Your task to perform on an android device: snooze an email in the gmail app Image 0: 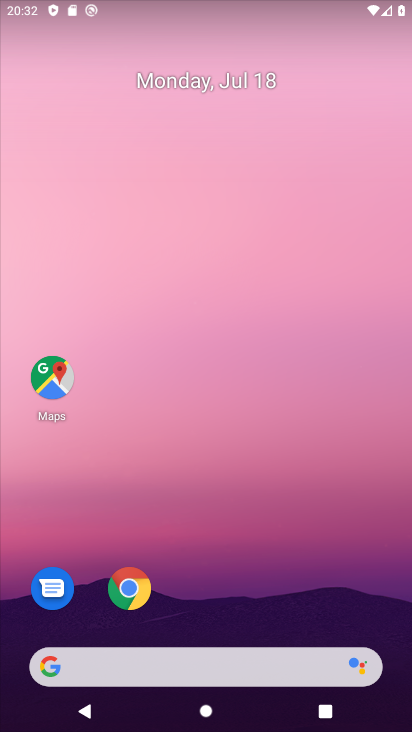
Step 0: press home button
Your task to perform on an android device: snooze an email in the gmail app Image 1: 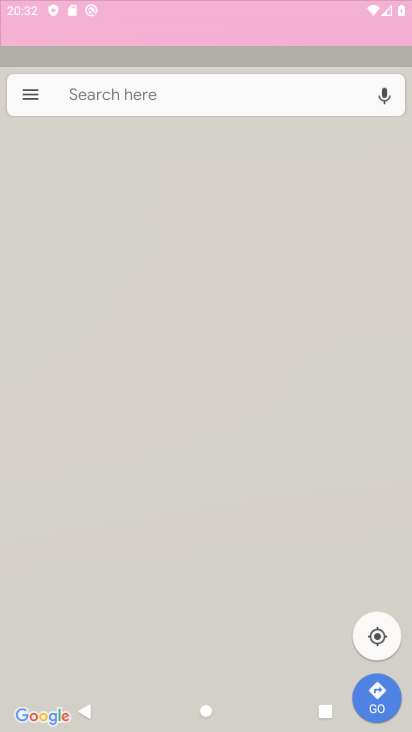
Step 1: drag from (199, 668) to (338, 123)
Your task to perform on an android device: snooze an email in the gmail app Image 2: 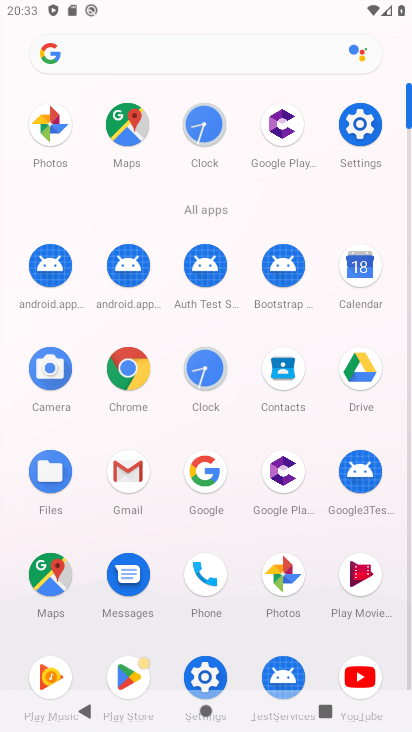
Step 2: click (128, 480)
Your task to perform on an android device: snooze an email in the gmail app Image 3: 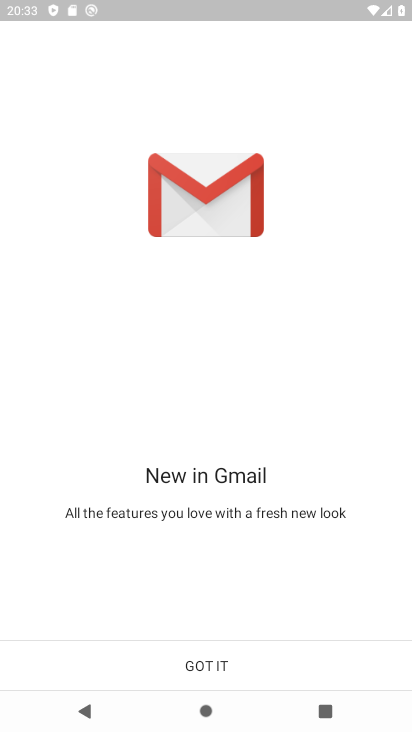
Step 3: click (216, 674)
Your task to perform on an android device: snooze an email in the gmail app Image 4: 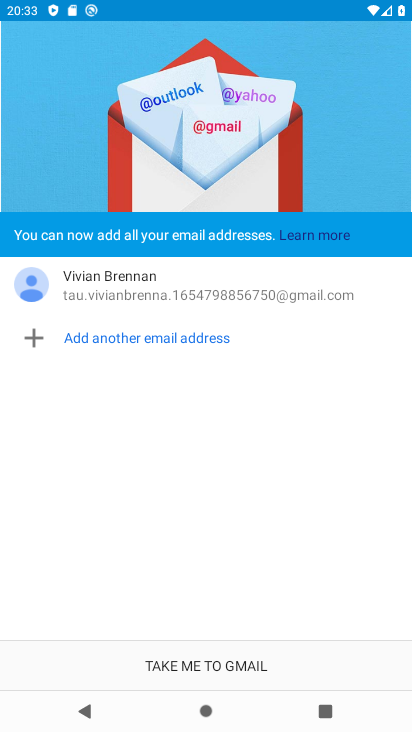
Step 4: click (211, 672)
Your task to perform on an android device: snooze an email in the gmail app Image 5: 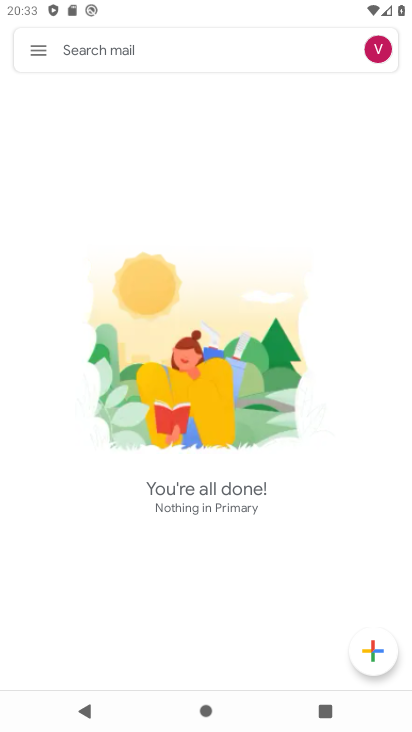
Step 5: task complete